Your task to perform on an android device: uninstall "Spotify: Music and Podcasts" Image 0: 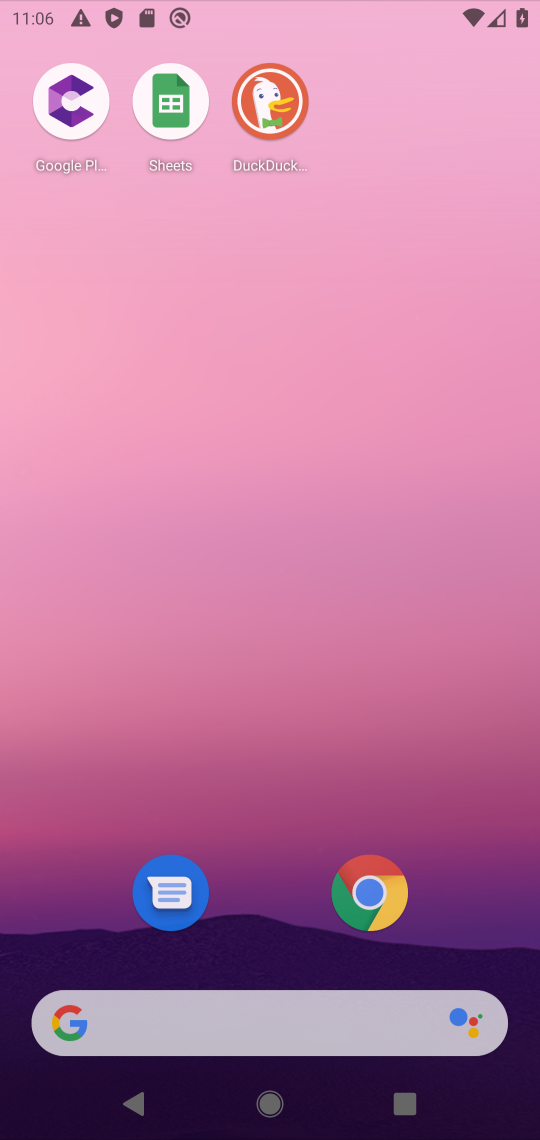
Step 0: press home button
Your task to perform on an android device: uninstall "Spotify: Music and Podcasts" Image 1: 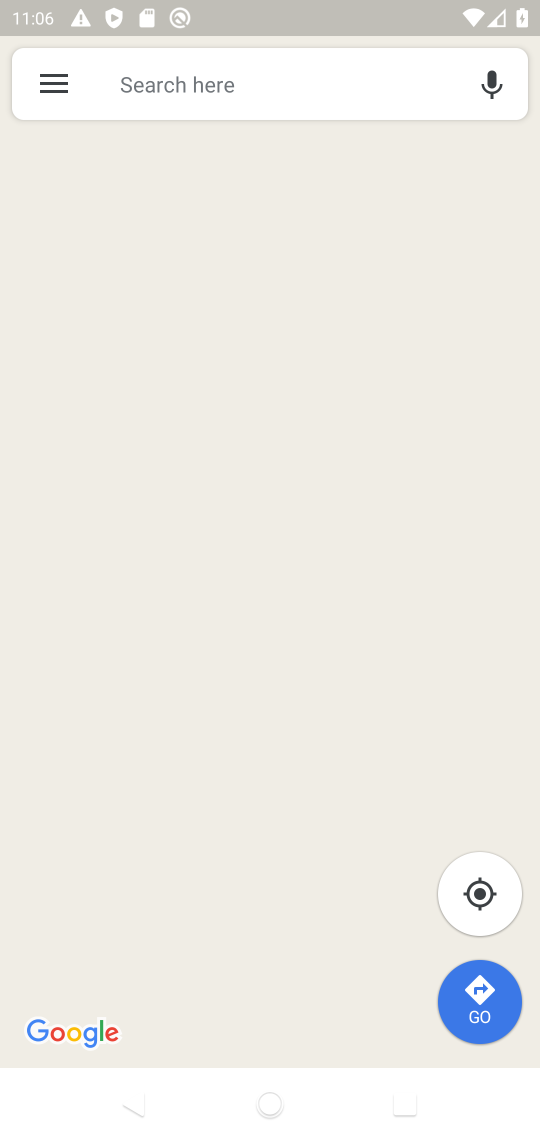
Step 1: drag from (238, 721) to (255, 215)
Your task to perform on an android device: uninstall "Spotify: Music and Podcasts" Image 2: 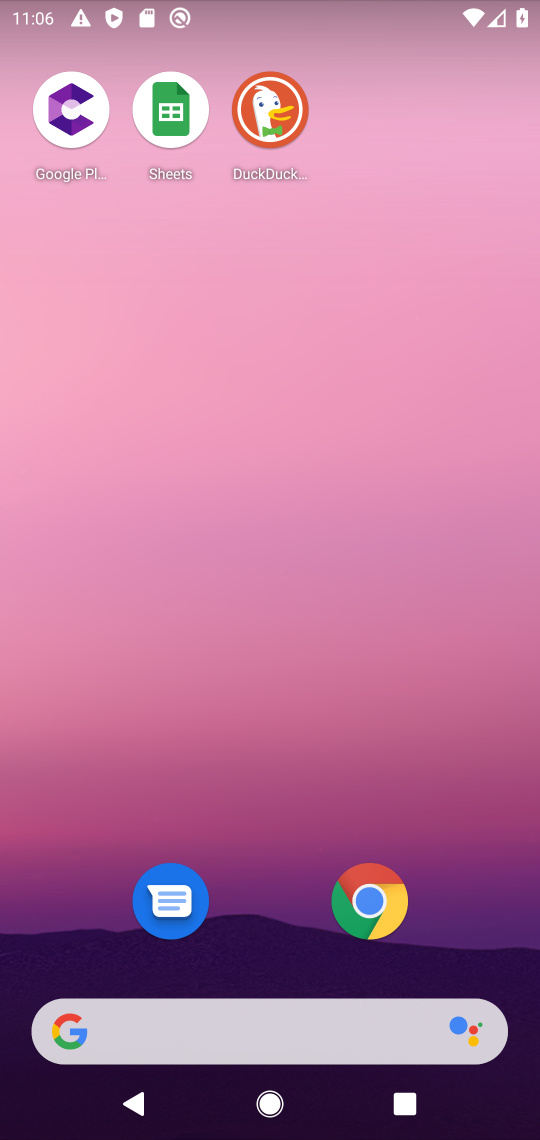
Step 2: drag from (276, 961) to (351, 273)
Your task to perform on an android device: uninstall "Spotify: Music and Podcasts" Image 3: 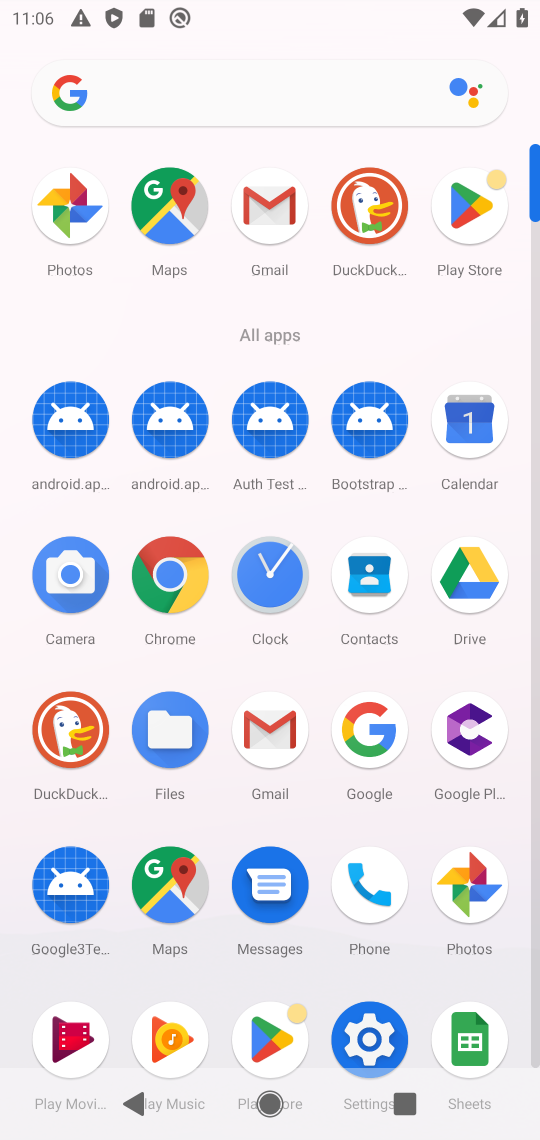
Step 3: click (453, 194)
Your task to perform on an android device: uninstall "Spotify: Music and Podcasts" Image 4: 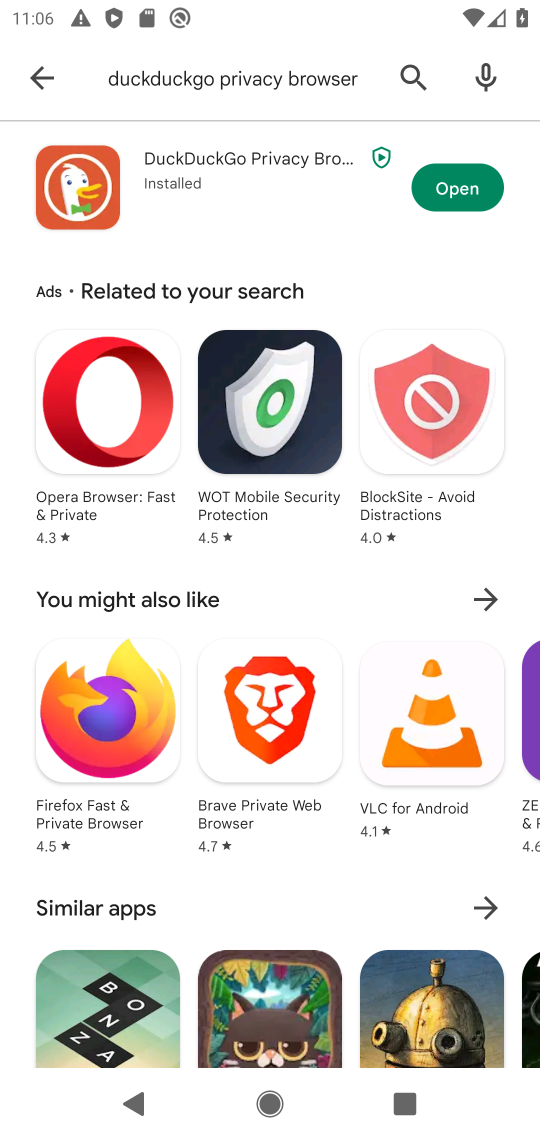
Step 4: click (414, 77)
Your task to perform on an android device: uninstall "Spotify: Music and Podcasts" Image 5: 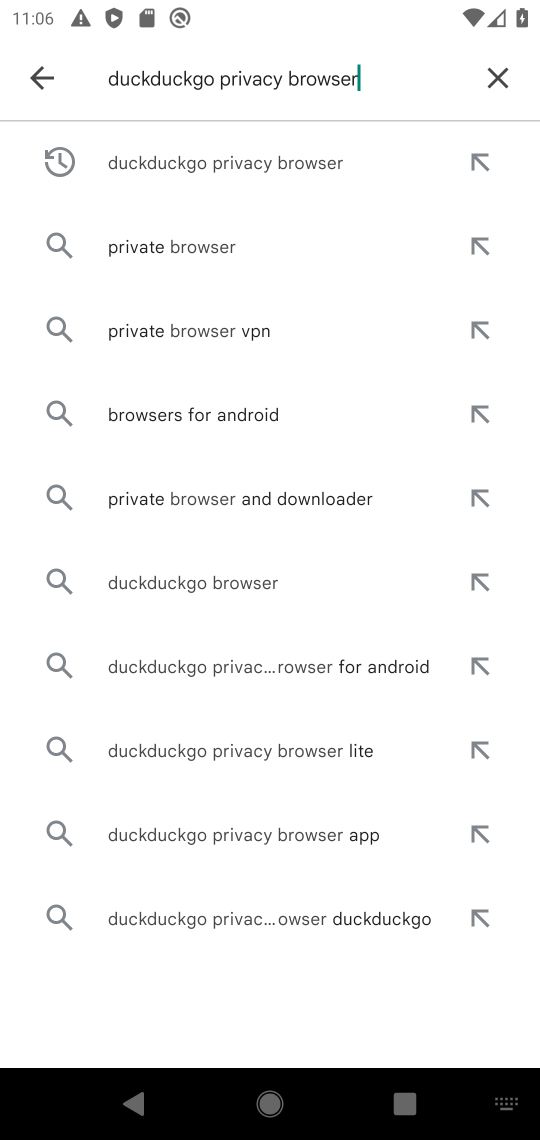
Step 5: click (492, 73)
Your task to perform on an android device: uninstall "Spotify: Music and Podcasts" Image 6: 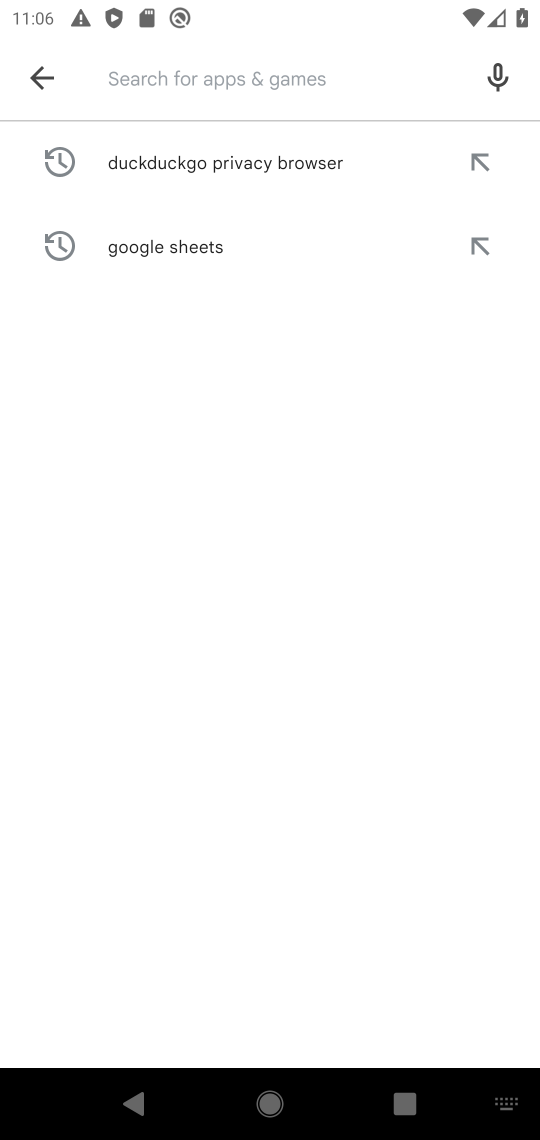
Step 6: type "Spotify: Music and Podcasts"
Your task to perform on an android device: uninstall "Spotify: Music and Podcasts" Image 7: 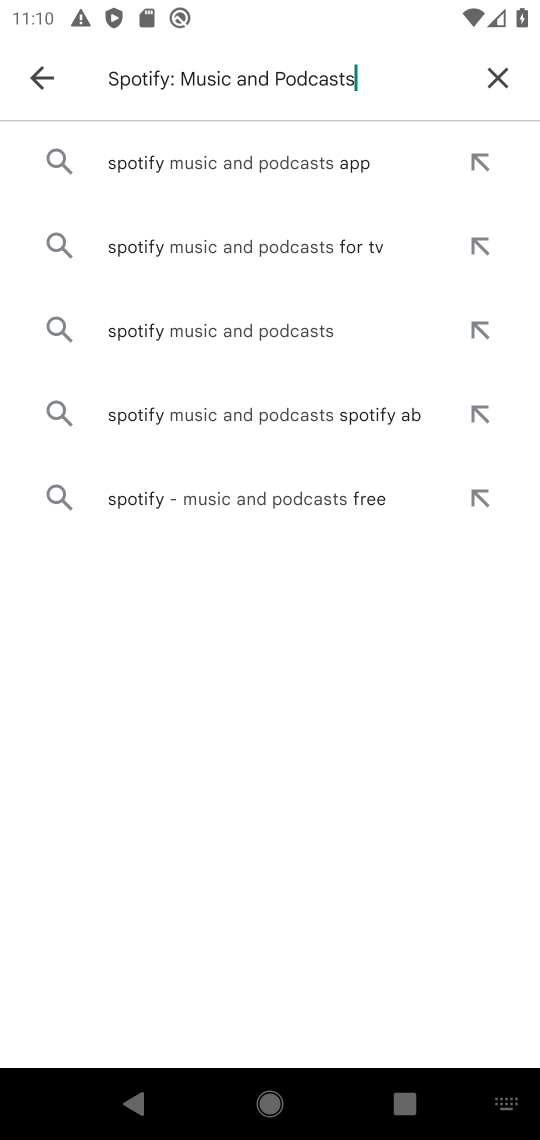
Step 7: click (246, 152)
Your task to perform on an android device: uninstall "Spotify: Music and Podcasts" Image 8: 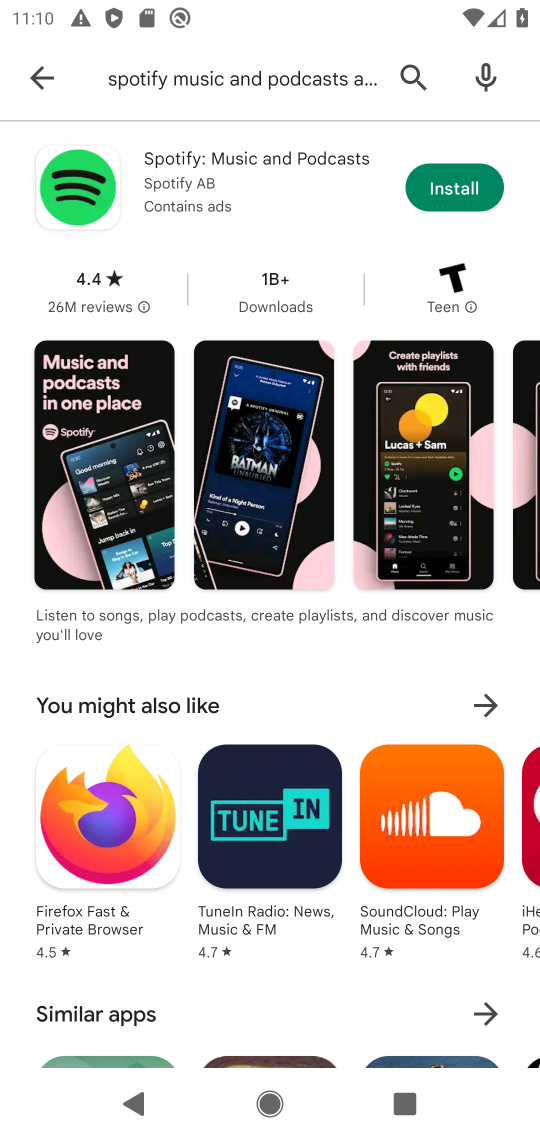
Step 8: click (462, 193)
Your task to perform on an android device: uninstall "Spotify: Music and Podcasts" Image 9: 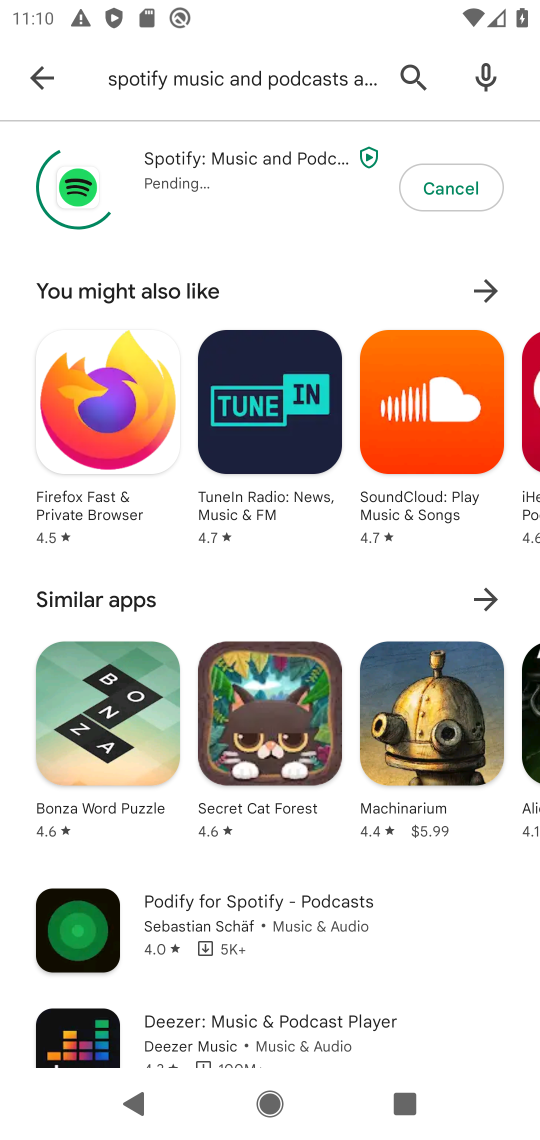
Step 9: click (448, 187)
Your task to perform on an android device: uninstall "Spotify: Music and Podcasts" Image 10: 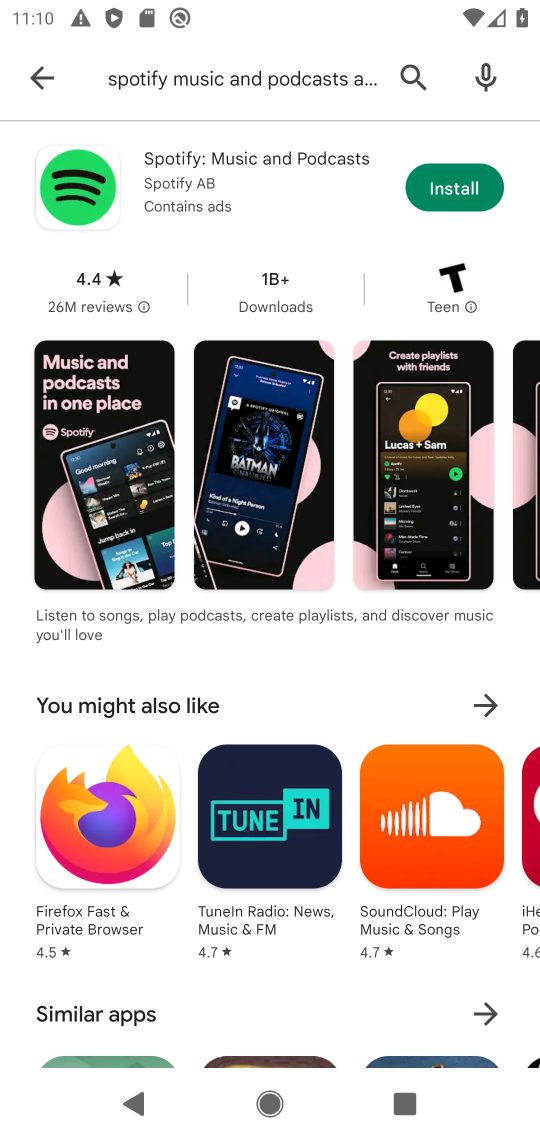
Step 10: task complete